Your task to perform on an android device: Empty the shopping cart on walmart. Search for "razer thresher" on walmart, select the first entry, and add it to the cart. Image 0: 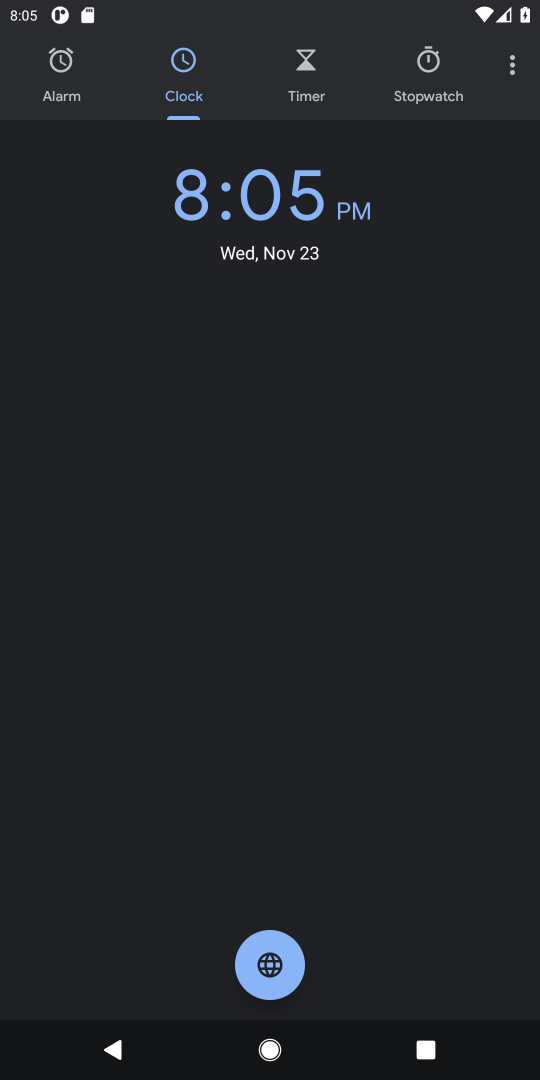
Step 0: press home button
Your task to perform on an android device: Empty the shopping cart on walmart. Search for "razer thresher" on walmart, select the first entry, and add it to the cart. Image 1: 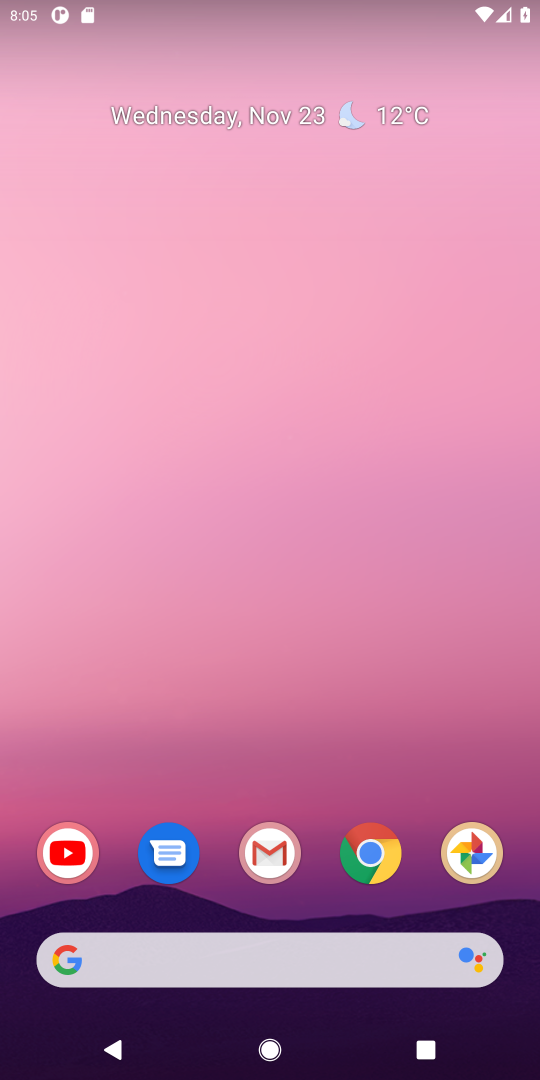
Step 1: click (353, 864)
Your task to perform on an android device: Empty the shopping cart on walmart. Search for "razer thresher" on walmart, select the first entry, and add it to the cart. Image 2: 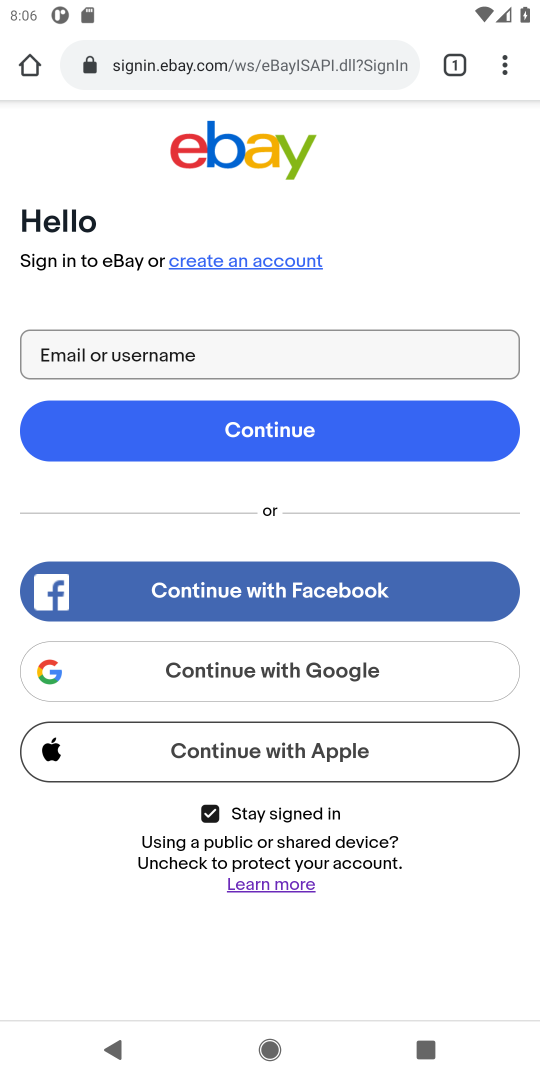
Step 2: click (233, 75)
Your task to perform on an android device: Empty the shopping cart on walmart. Search for "razer thresher" on walmart, select the first entry, and add it to the cart. Image 3: 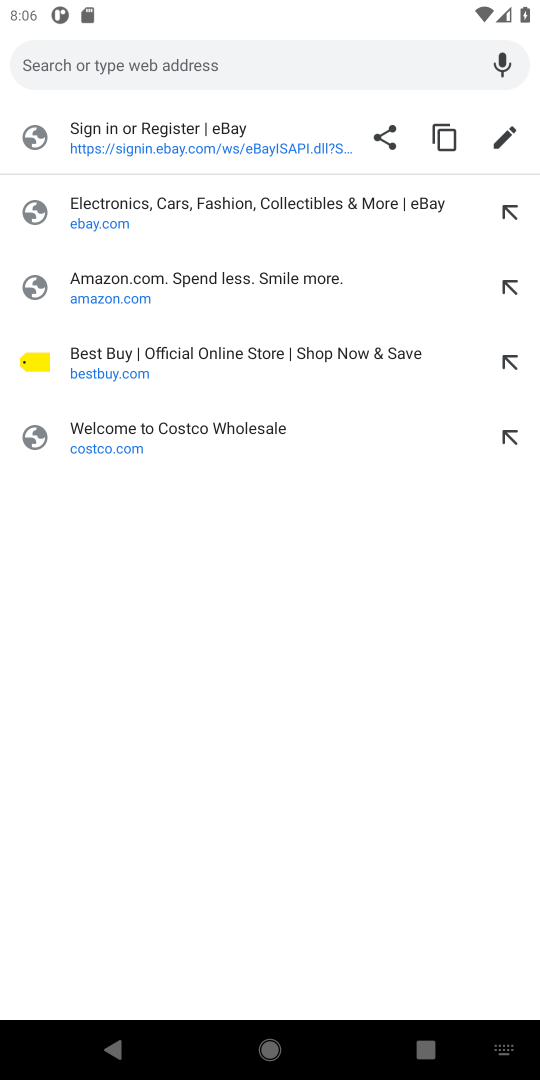
Step 3: type ""
Your task to perform on an android device: Empty the shopping cart on walmart. Search for "razer thresher" on walmart, select the first entry, and add it to the cart. Image 4: 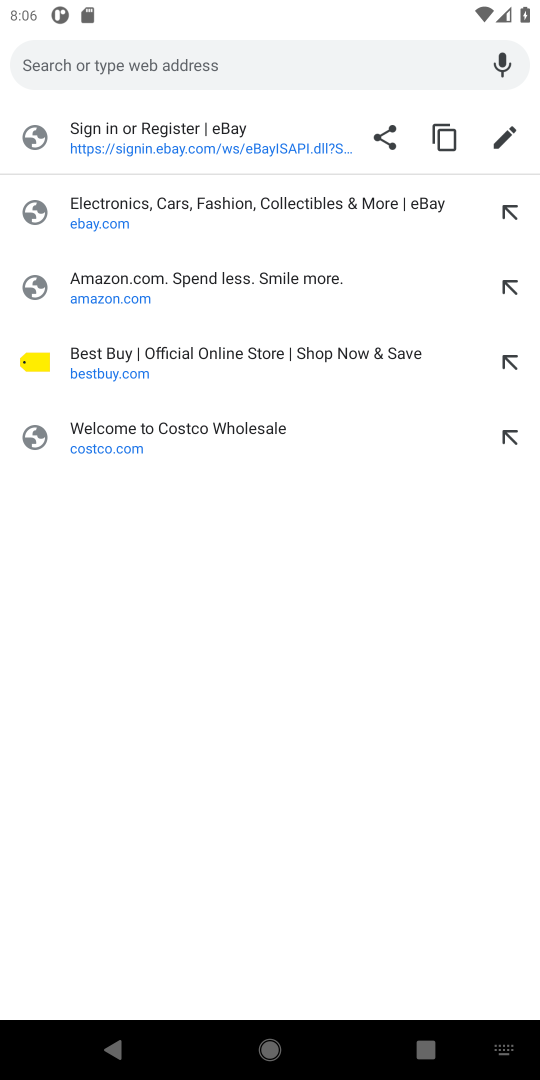
Step 4: type "walmart.com"
Your task to perform on an android device: Empty the shopping cart on walmart. Search for "razer thresher" on walmart, select the first entry, and add it to the cart. Image 5: 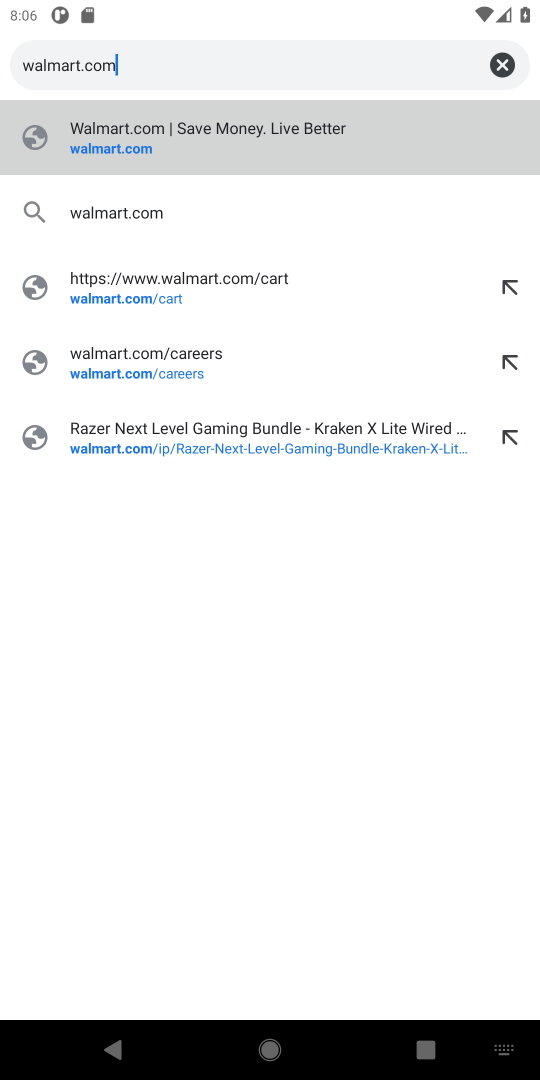
Step 5: click (106, 163)
Your task to perform on an android device: Empty the shopping cart on walmart. Search for "razer thresher" on walmart, select the first entry, and add it to the cart. Image 6: 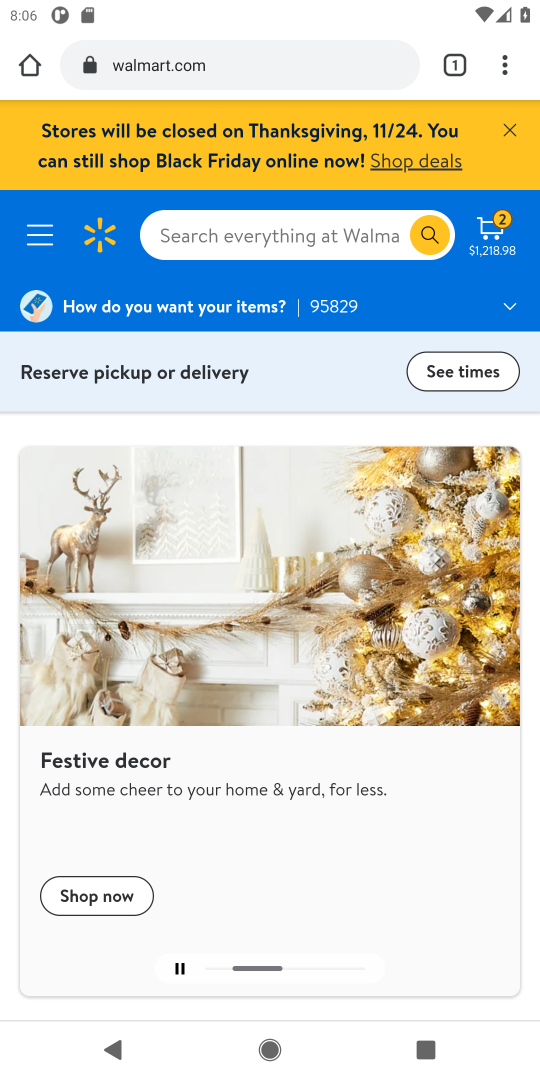
Step 6: click (488, 241)
Your task to perform on an android device: Empty the shopping cart on walmart. Search for "razer thresher" on walmart, select the first entry, and add it to the cart. Image 7: 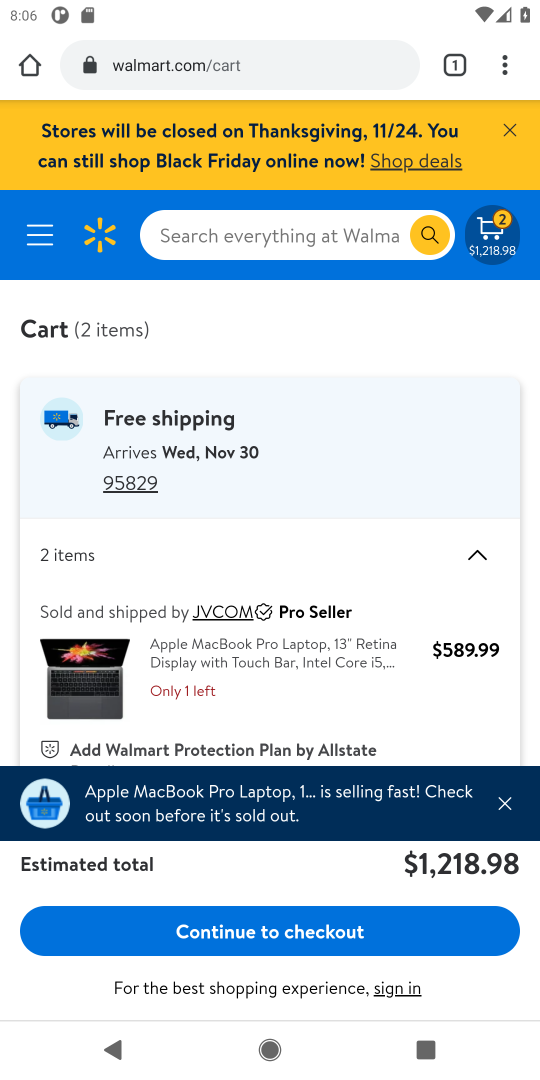
Step 7: drag from (281, 651) to (283, 319)
Your task to perform on an android device: Empty the shopping cart on walmart. Search for "razer thresher" on walmart, select the first entry, and add it to the cart. Image 8: 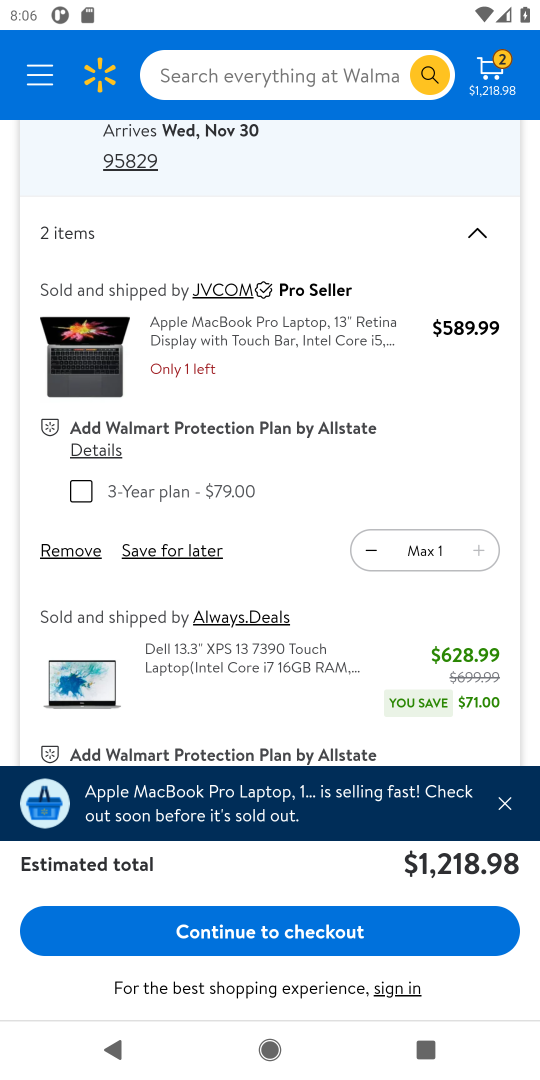
Step 8: click (56, 565)
Your task to perform on an android device: Empty the shopping cart on walmart. Search for "razer thresher" on walmart, select the first entry, and add it to the cart. Image 9: 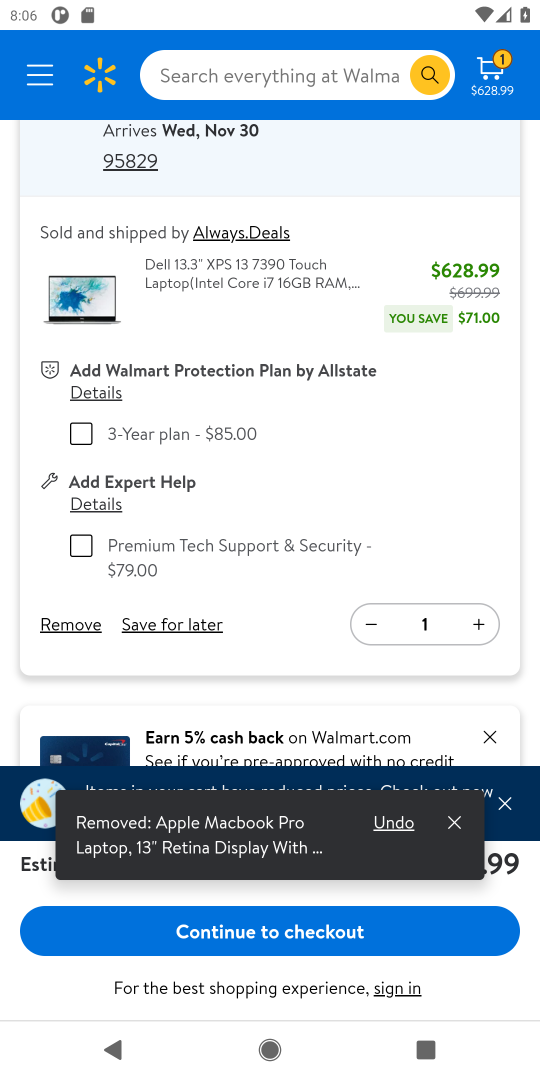
Step 9: click (70, 627)
Your task to perform on an android device: Empty the shopping cart on walmart. Search for "razer thresher" on walmart, select the first entry, and add it to the cart. Image 10: 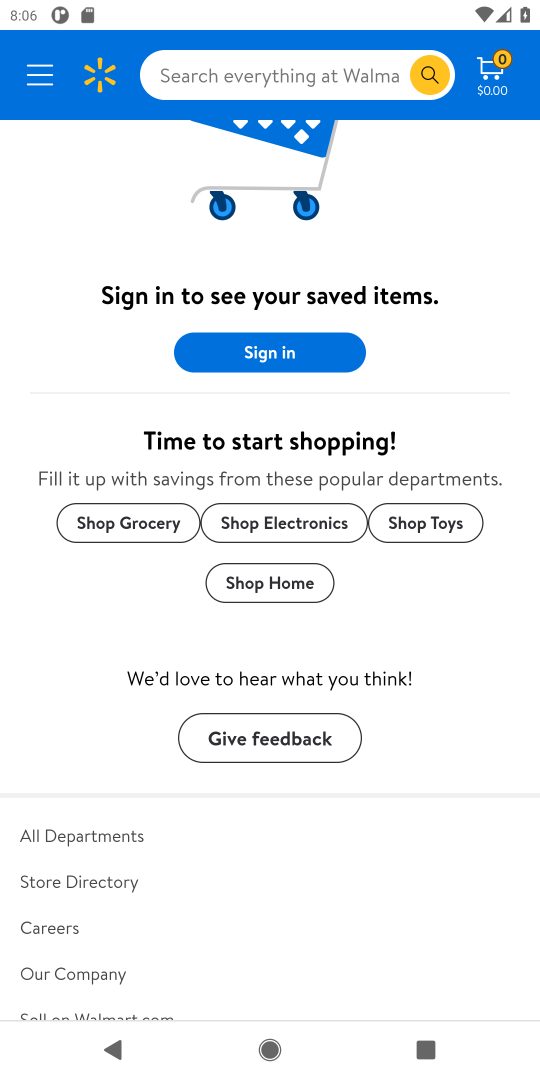
Step 10: drag from (504, 271) to (423, 682)
Your task to perform on an android device: Empty the shopping cart on walmart. Search for "razer thresher" on walmart, select the first entry, and add it to the cart. Image 11: 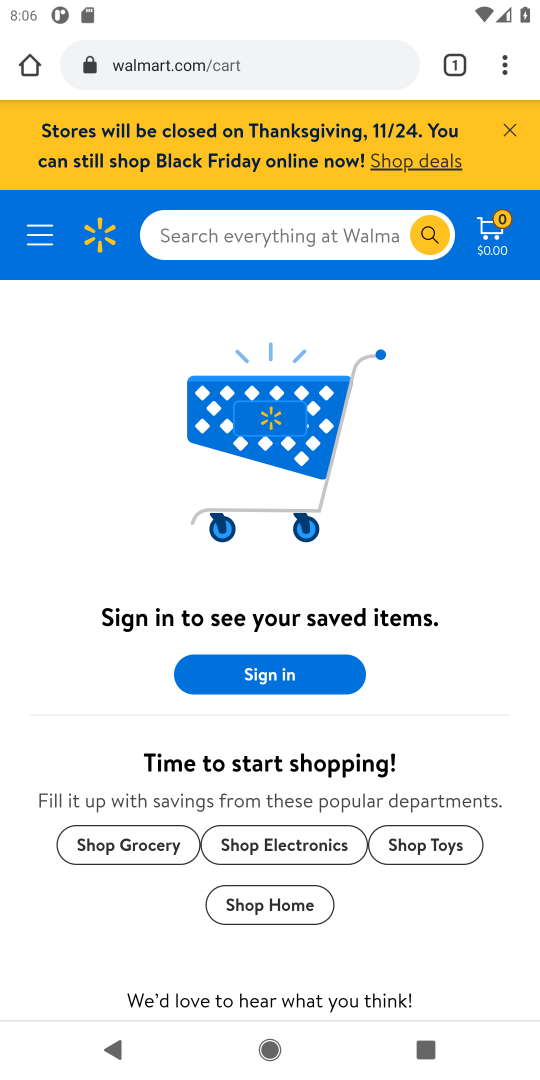
Step 11: click (222, 233)
Your task to perform on an android device: Empty the shopping cart on walmart. Search for "razer thresher" on walmart, select the first entry, and add it to the cart. Image 12: 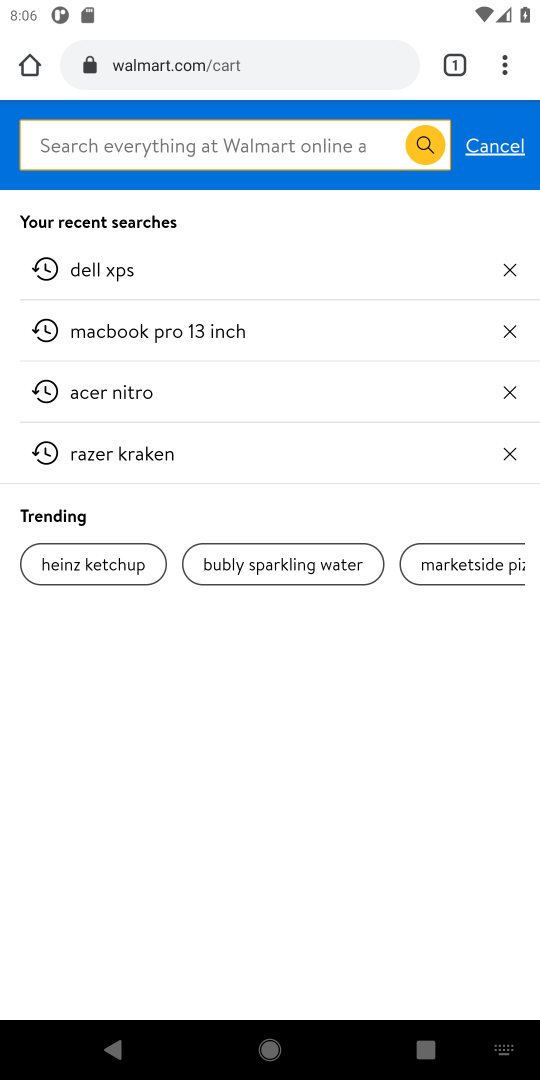
Step 12: type "razer thresher"
Your task to perform on an android device: Empty the shopping cart on walmart. Search for "razer thresher" on walmart, select the first entry, and add it to the cart. Image 13: 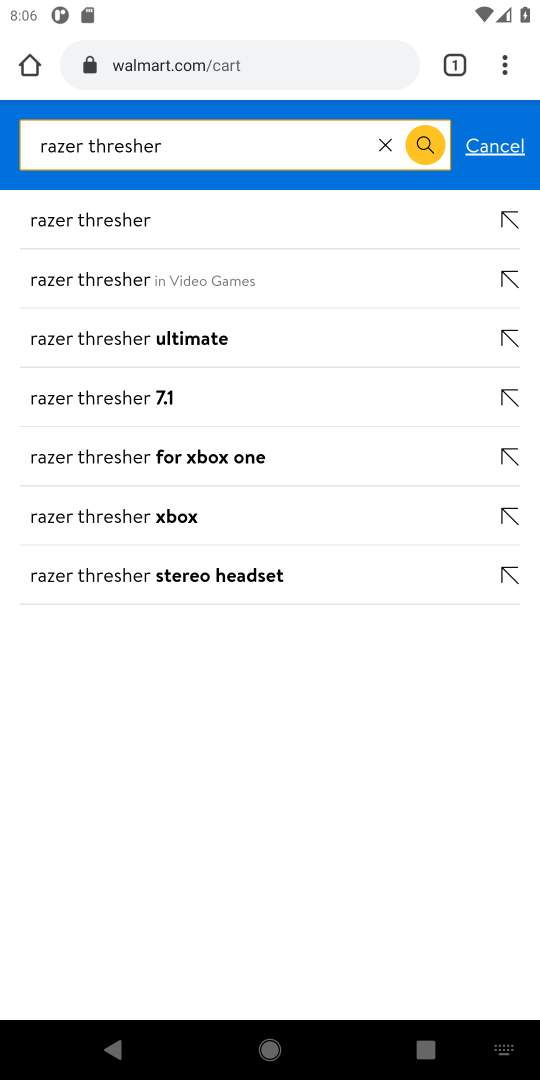
Step 13: click (66, 223)
Your task to perform on an android device: Empty the shopping cart on walmart. Search for "razer thresher" on walmart, select the first entry, and add it to the cart. Image 14: 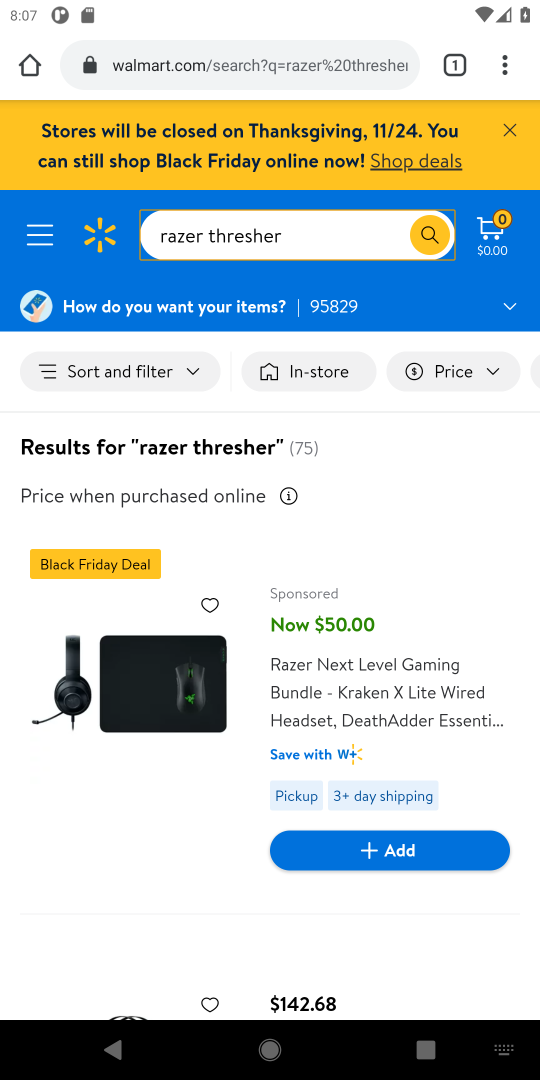
Step 14: task complete